Your task to perform on an android device: Open Yahoo.com Image 0: 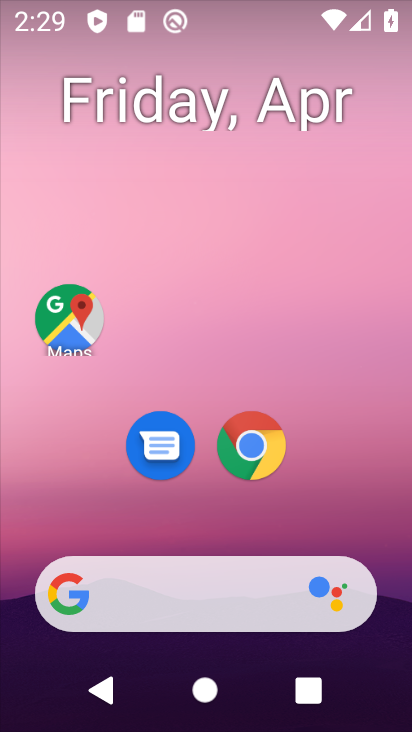
Step 0: click (253, 448)
Your task to perform on an android device: Open Yahoo.com Image 1: 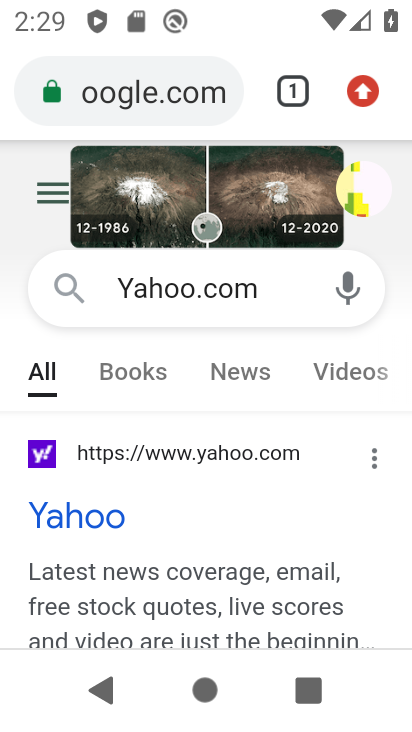
Step 1: click (176, 91)
Your task to perform on an android device: Open Yahoo.com Image 2: 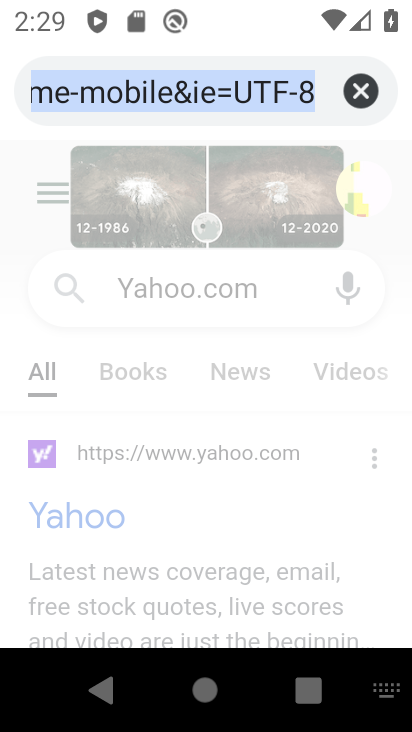
Step 2: click (355, 87)
Your task to perform on an android device: Open Yahoo.com Image 3: 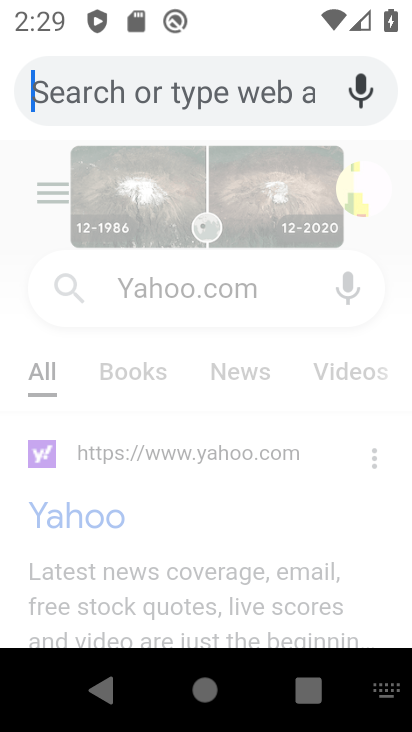
Step 3: click (235, 100)
Your task to perform on an android device: Open Yahoo.com Image 4: 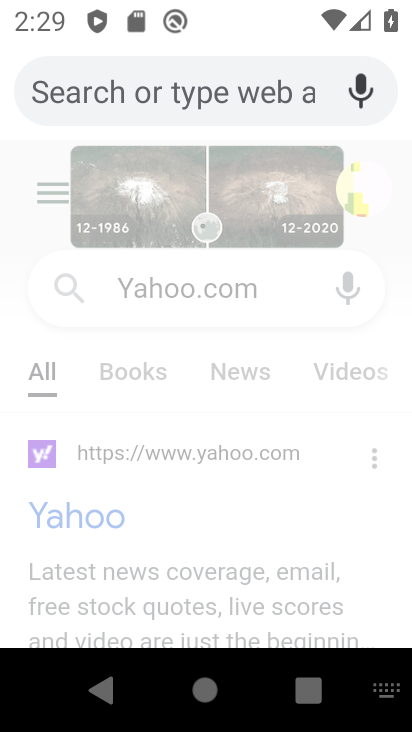
Step 4: type "Yahoo.com"
Your task to perform on an android device: Open Yahoo.com Image 5: 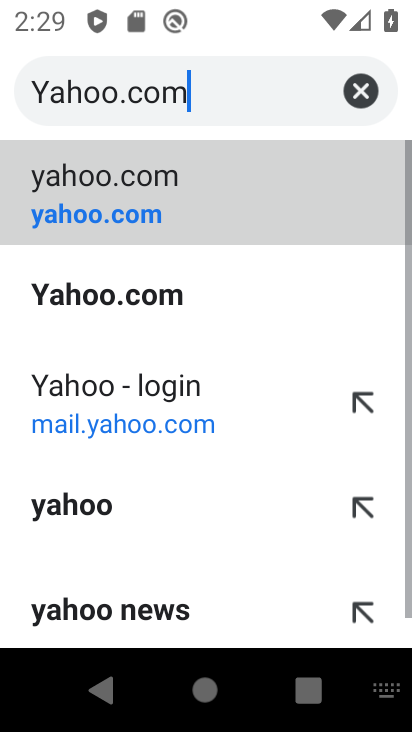
Step 5: type ""
Your task to perform on an android device: Open Yahoo.com Image 6: 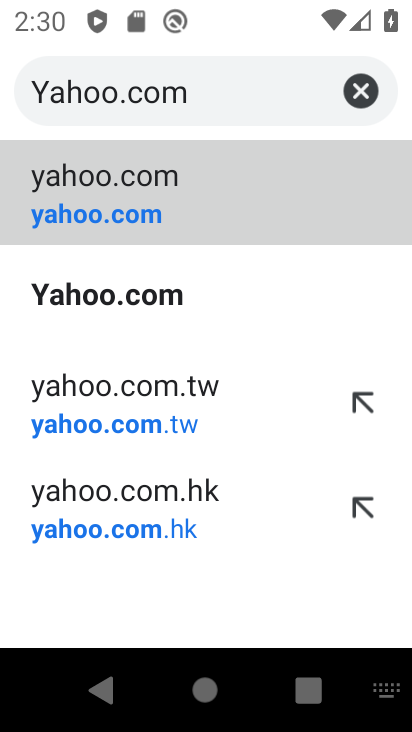
Step 6: click (183, 295)
Your task to perform on an android device: Open Yahoo.com Image 7: 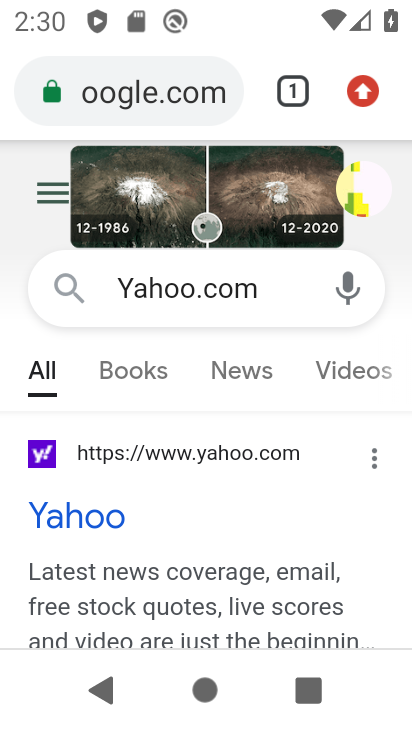
Step 7: task complete